Your task to perform on an android device: turn off priority inbox in the gmail app Image 0: 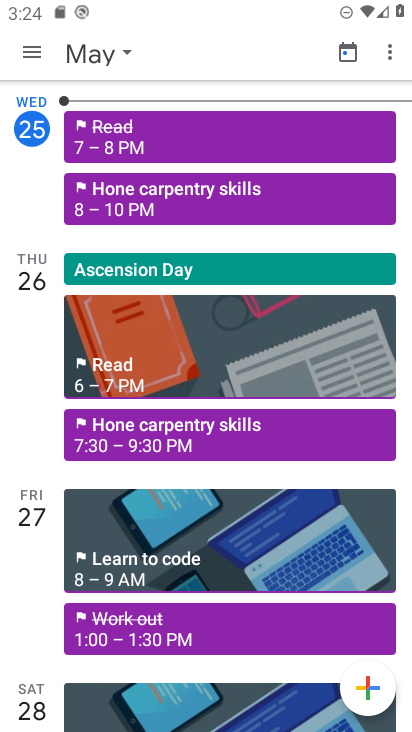
Step 0: press home button
Your task to perform on an android device: turn off priority inbox in the gmail app Image 1: 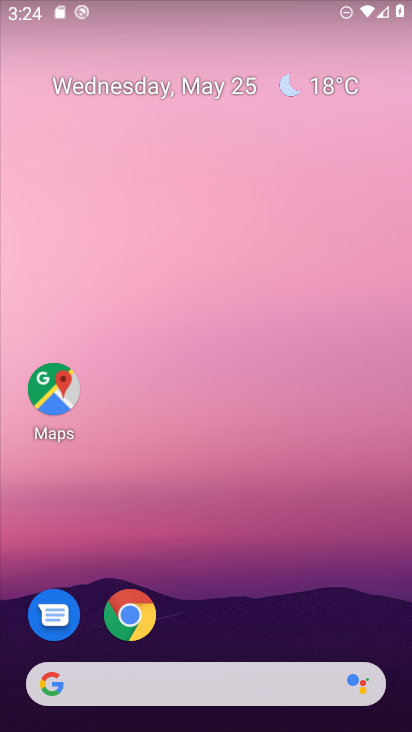
Step 1: drag from (274, 591) to (322, 26)
Your task to perform on an android device: turn off priority inbox in the gmail app Image 2: 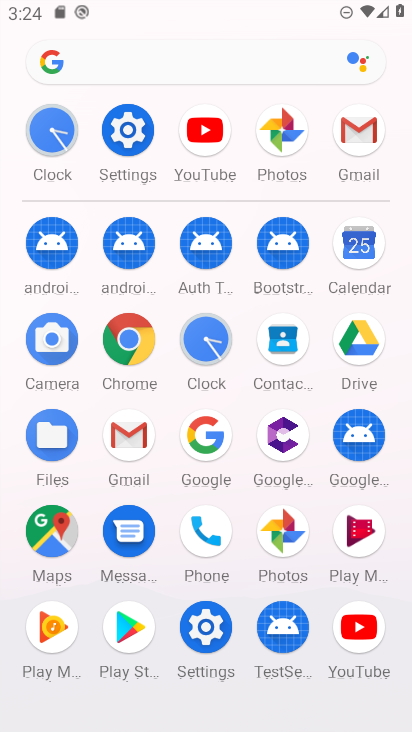
Step 2: click (361, 137)
Your task to perform on an android device: turn off priority inbox in the gmail app Image 3: 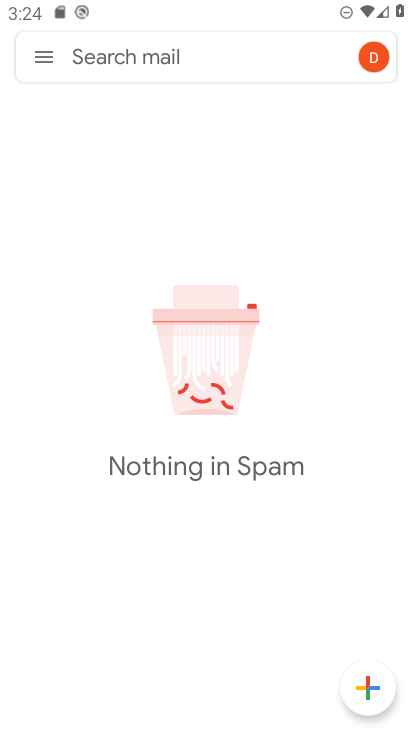
Step 3: click (47, 57)
Your task to perform on an android device: turn off priority inbox in the gmail app Image 4: 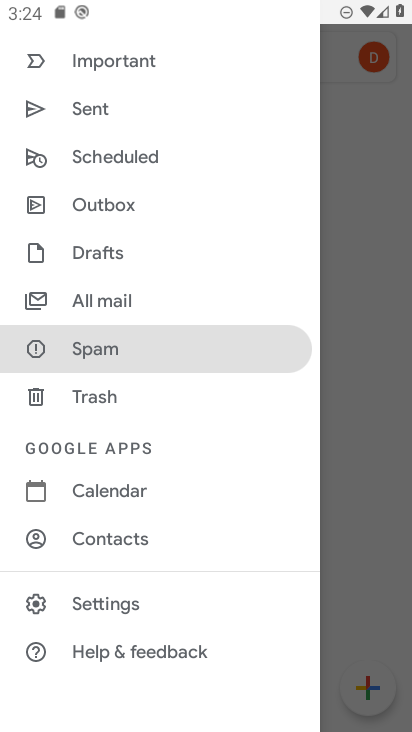
Step 4: click (100, 596)
Your task to perform on an android device: turn off priority inbox in the gmail app Image 5: 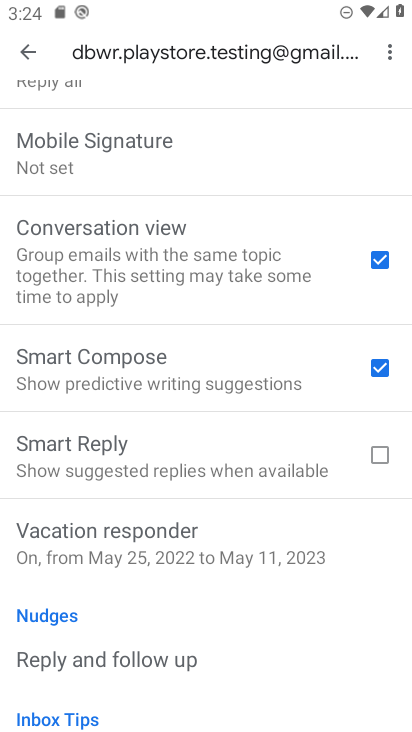
Step 5: drag from (157, 193) to (118, 643)
Your task to perform on an android device: turn off priority inbox in the gmail app Image 6: 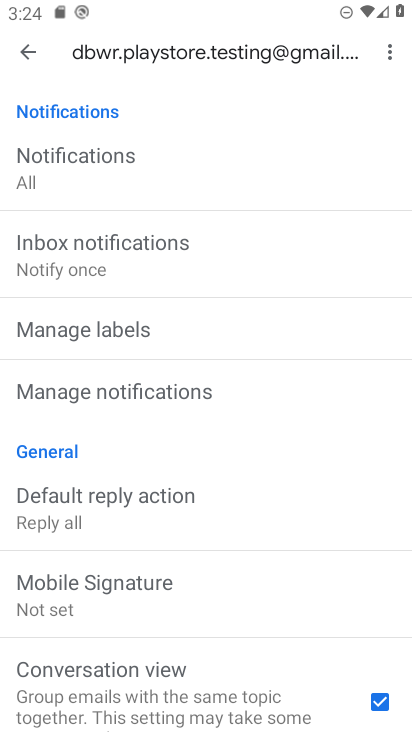
Step 6: click (182, 260)
Your task to perform on an android device: turn off priority inbox in the gmail app Image 7: 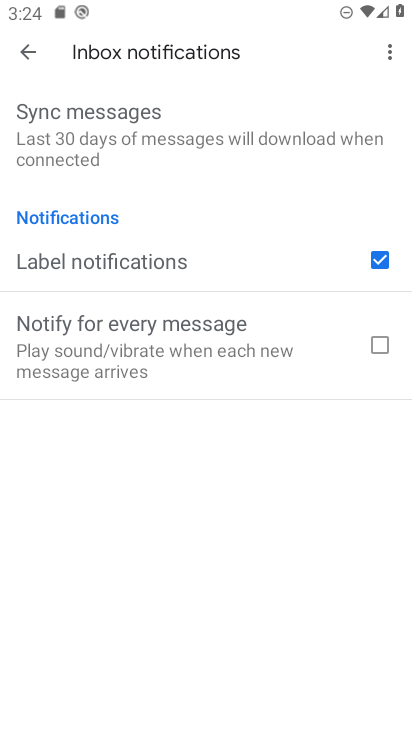
Step 7: click (27, 47)
Your task to perform on an android device: turn off priority inbox in the gmail app Image 8: 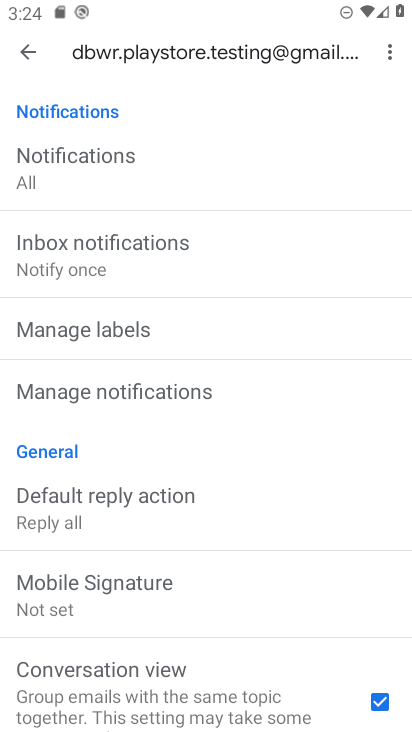
Step 8: drag from (98, 243) to (100, 589)
Your task to perform on an android device: turn off priority inbox in the gmail app Image 9: 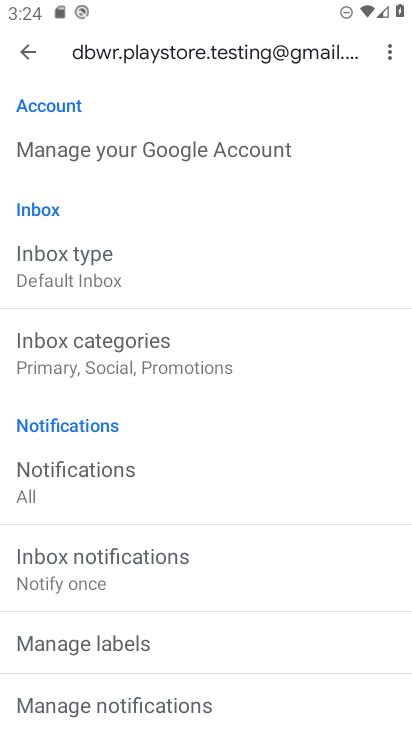
Step 9: click (96, 265)
Your task to perform on an android device: turn off priority inbox in the gmail app Image 10: 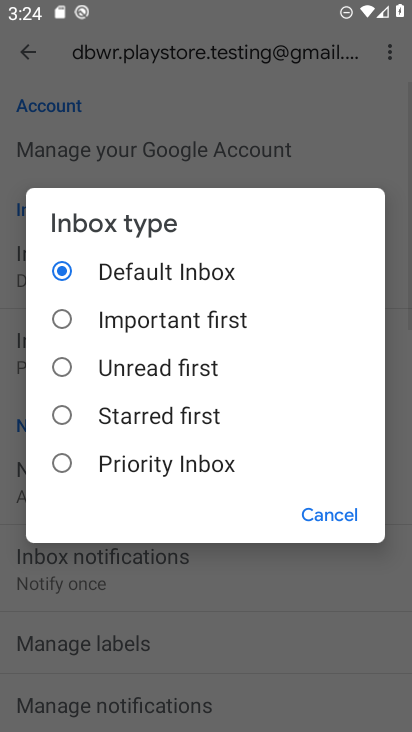
Step 10: click (94, 316)
Your task to perform on an android device: turn off priority inbox in the gmail app Image 11: 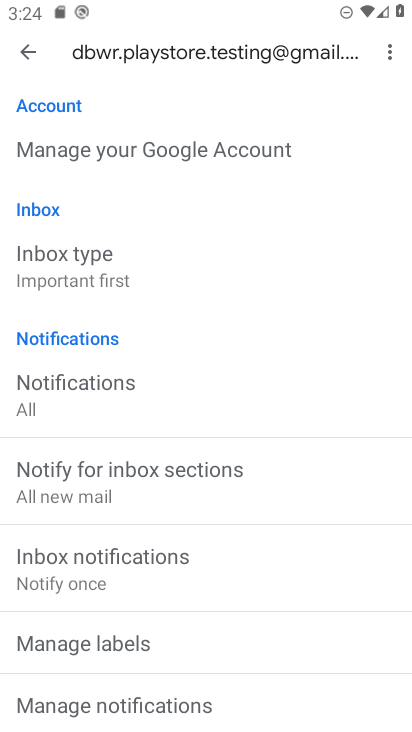
Step 11: task complete